Your task to perform on an android device: open app "Adobe Express: Graphic Design" (install if not already installed) and go to login screen Image 0: 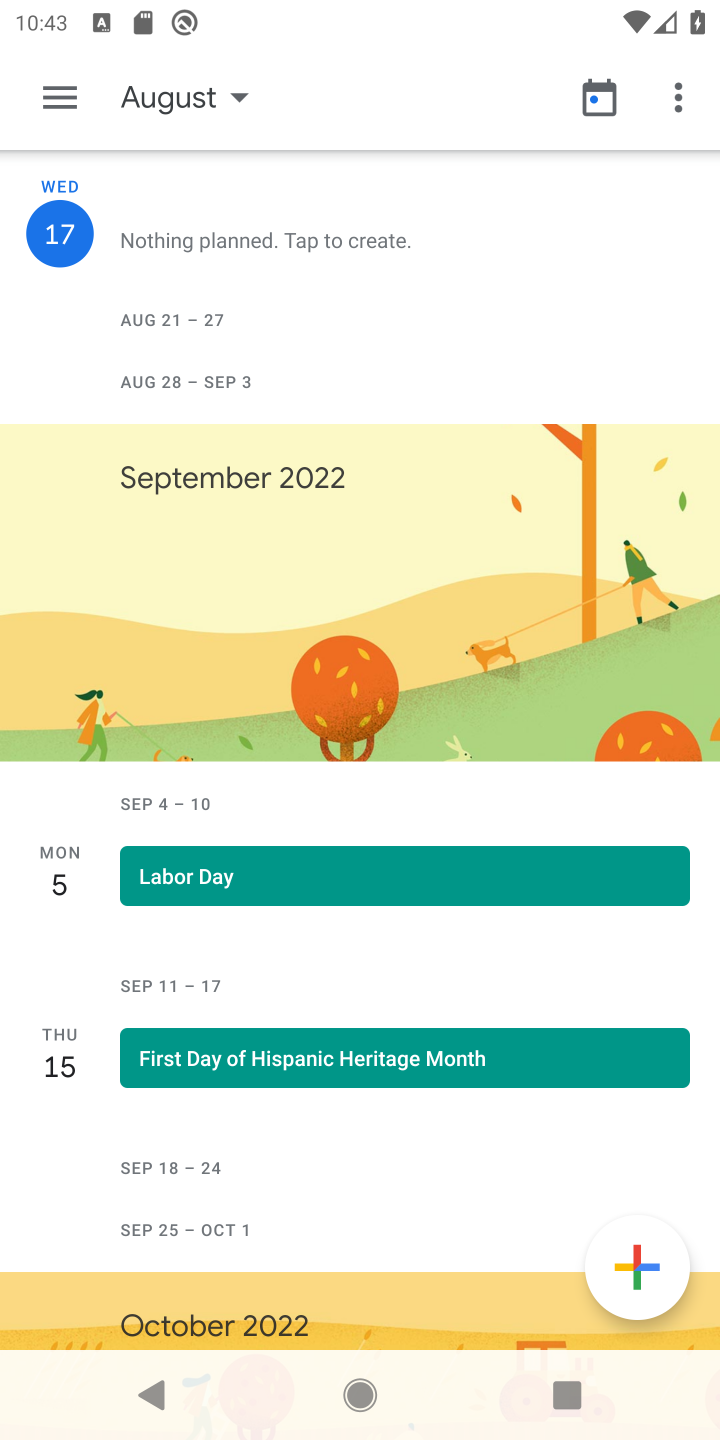
Step 0: press home button
Your task to perform on an android device: open app "Adobe Express: Graphic Design" (install if not already installed) and go to login screen Image 1: 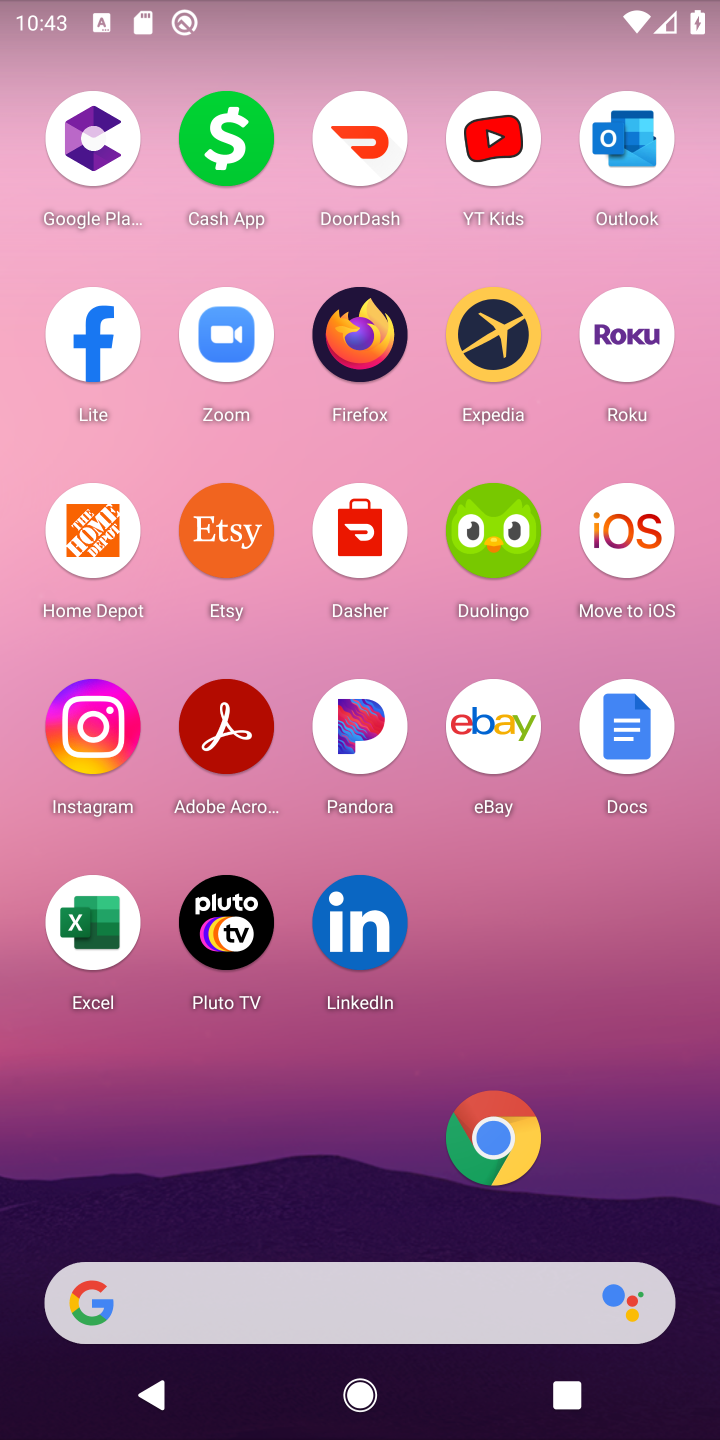
Step 1: drag from (242, 1210) to (347, 580)
Your task to perform on an android device: open app "Adobe Express: Graphic Design" (install if not already installed) and go to login screen Image 2: 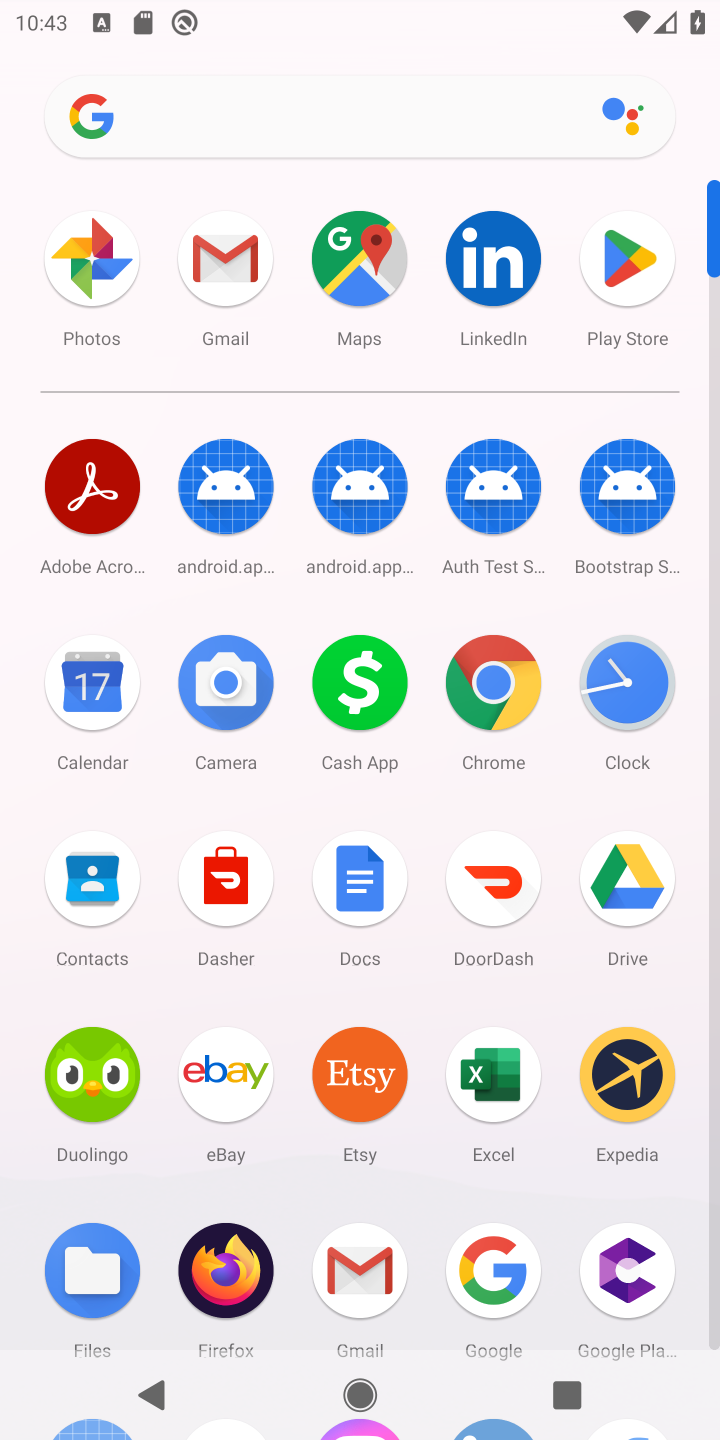
Step 2: click (603, 239)
Your task to perform on an android device: open app "Adobe Express: Graphic Design" (install if not already installed) and go to login screen Image 3: 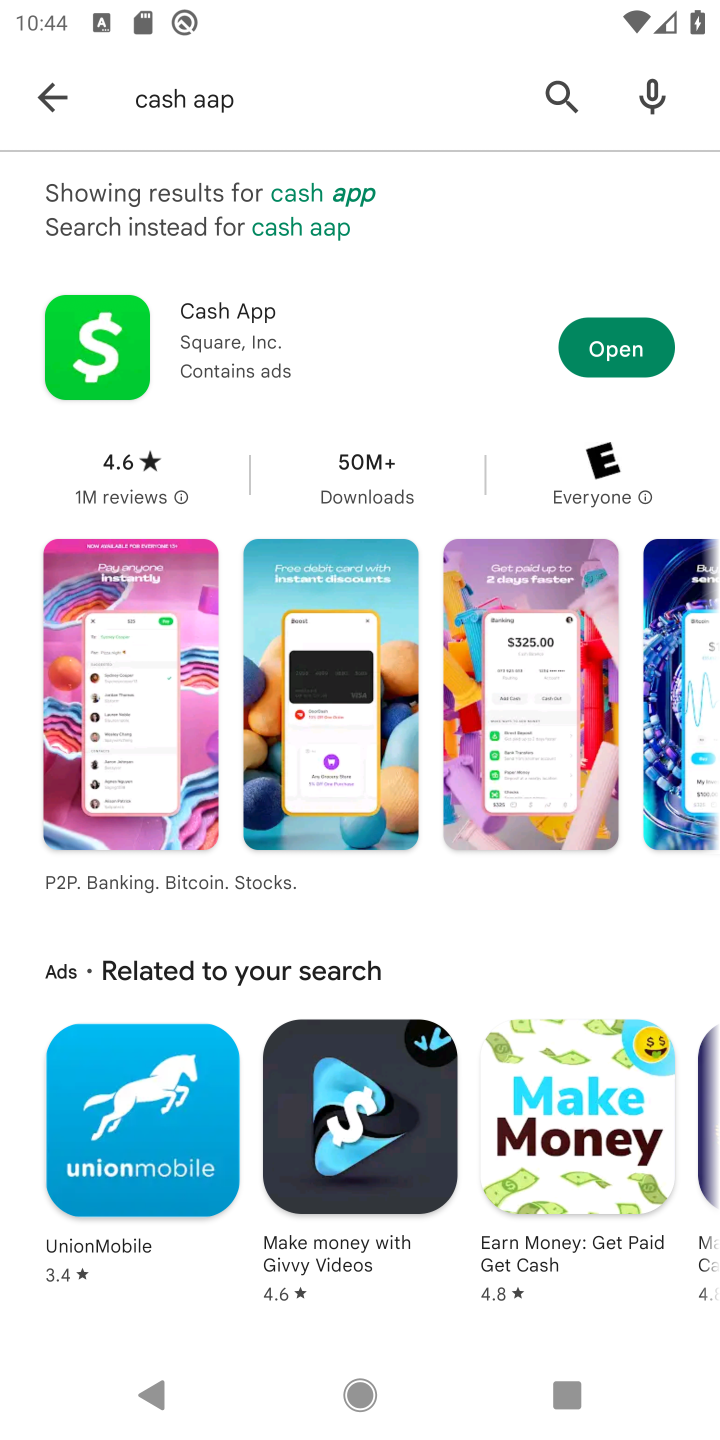
Step 3: click (49, 123)
Your task to perform on an android device: open app "Adobe Express: Graphic Design" (install if not already installed) and go to login screen Image 4: 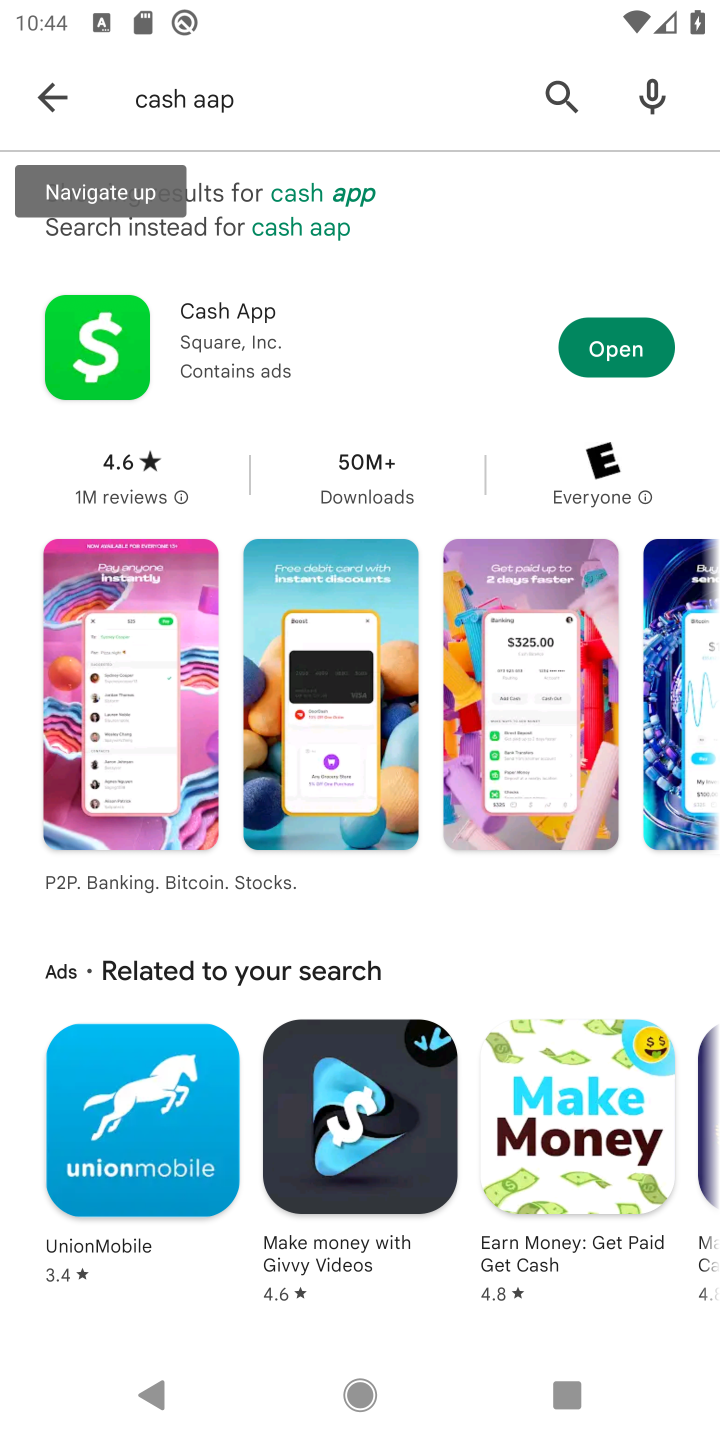
Step 4: click (52, 90)
Your task to perform on an android device: open app "Adobe Express: Graphic Design" (install if not already installed) and go to login screen Image 5: 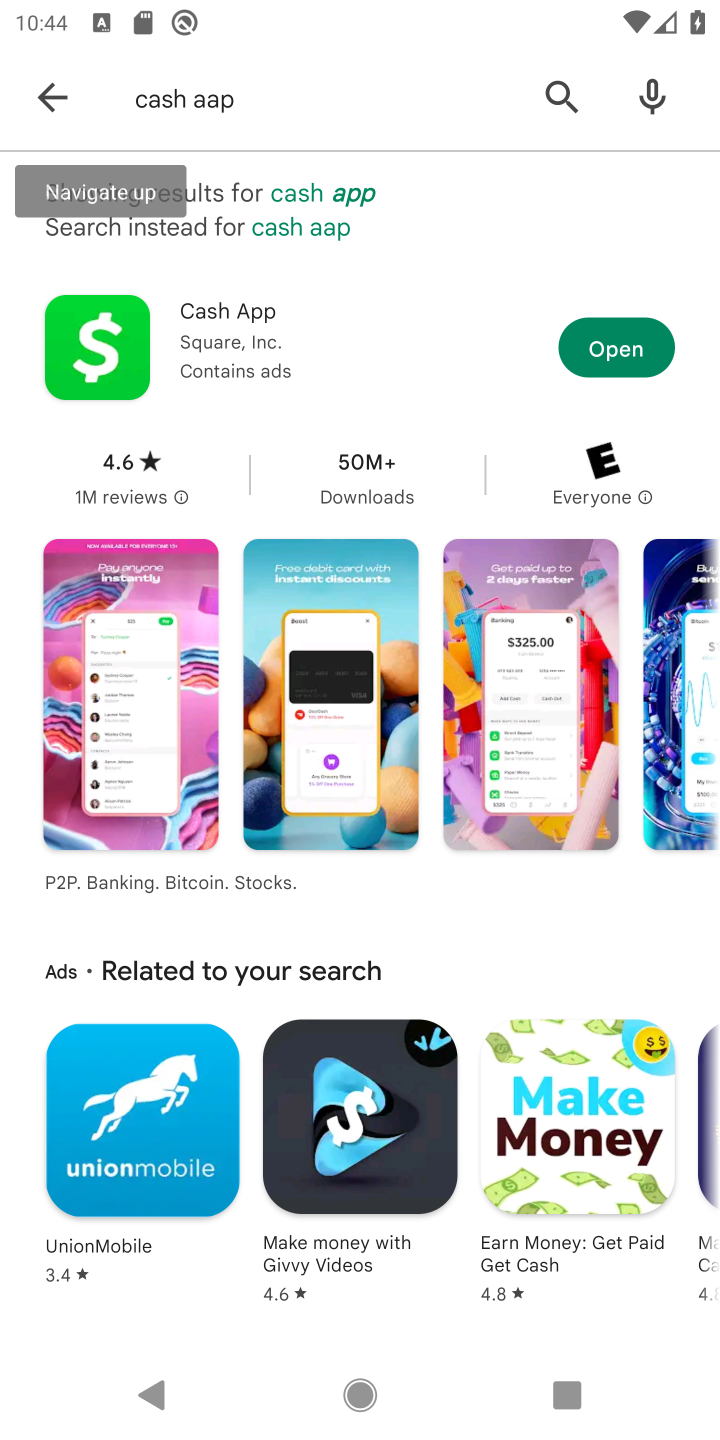
Step 5: click (52, 90)
Your task to perform on an android device: open app "Adobe Express: Graphic Design" (install if not already installed) and go to login screen Image 6: 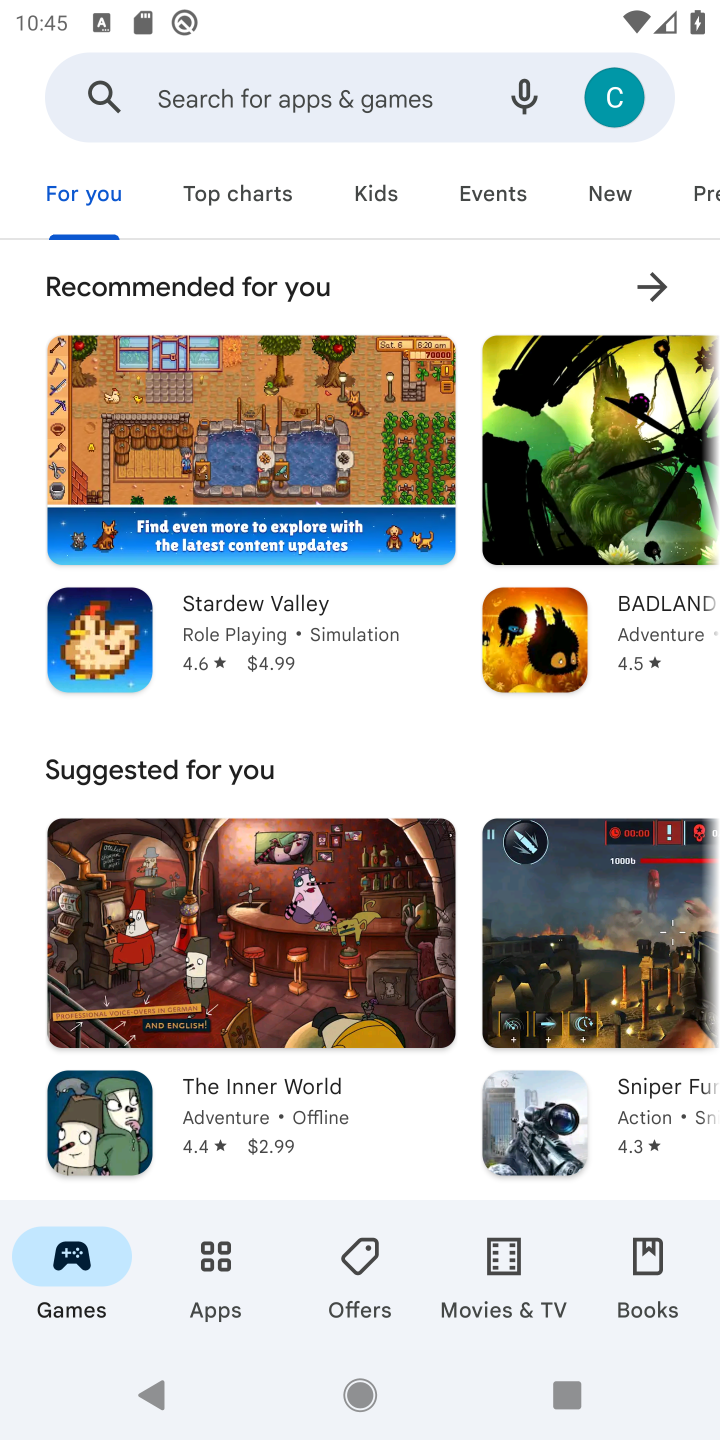
Step 6: click (334, 81)
Your task to perform on an android device: open app "Adobe Express: Graphic Design" (install if not already installed) and go to login screen Image 7: 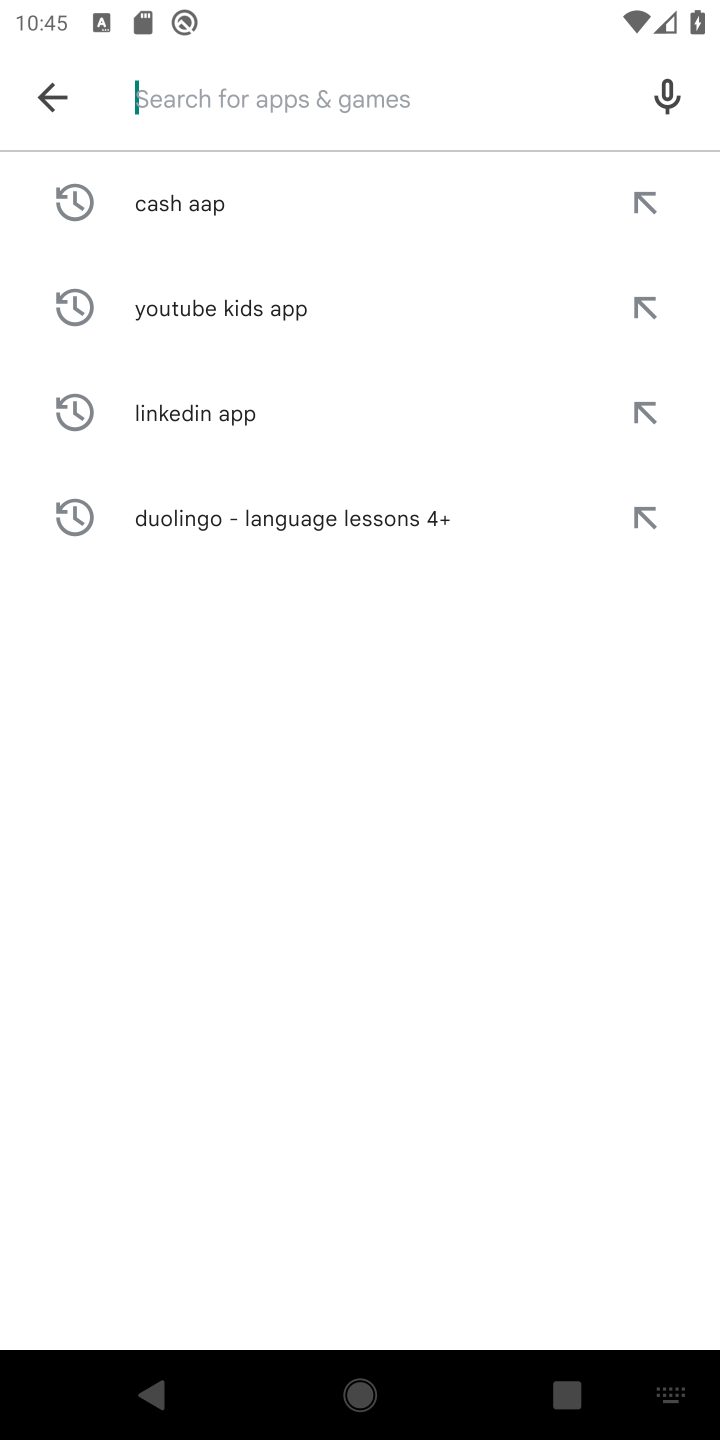
Step 7: type "Adobe Express: Graphic Design "
Your task to perform on an android device: open app "Adobe Express: Graphic Design" (install if not already installed) and go to login screen Image 8: 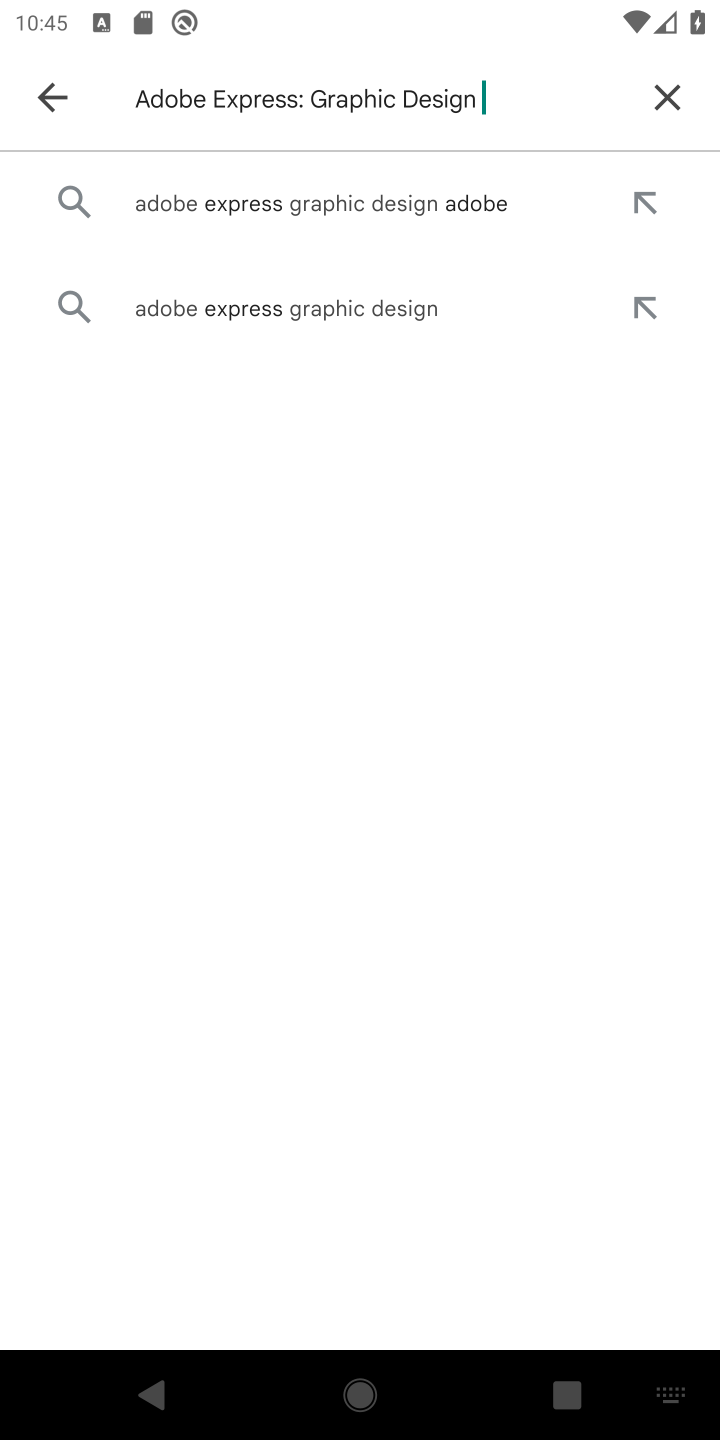
Step 8: click (273, 204)
Your task to perform on an android device: open app "Adobe Express: Graphic Design" (install if not already installed) and go to login screen Image 9: 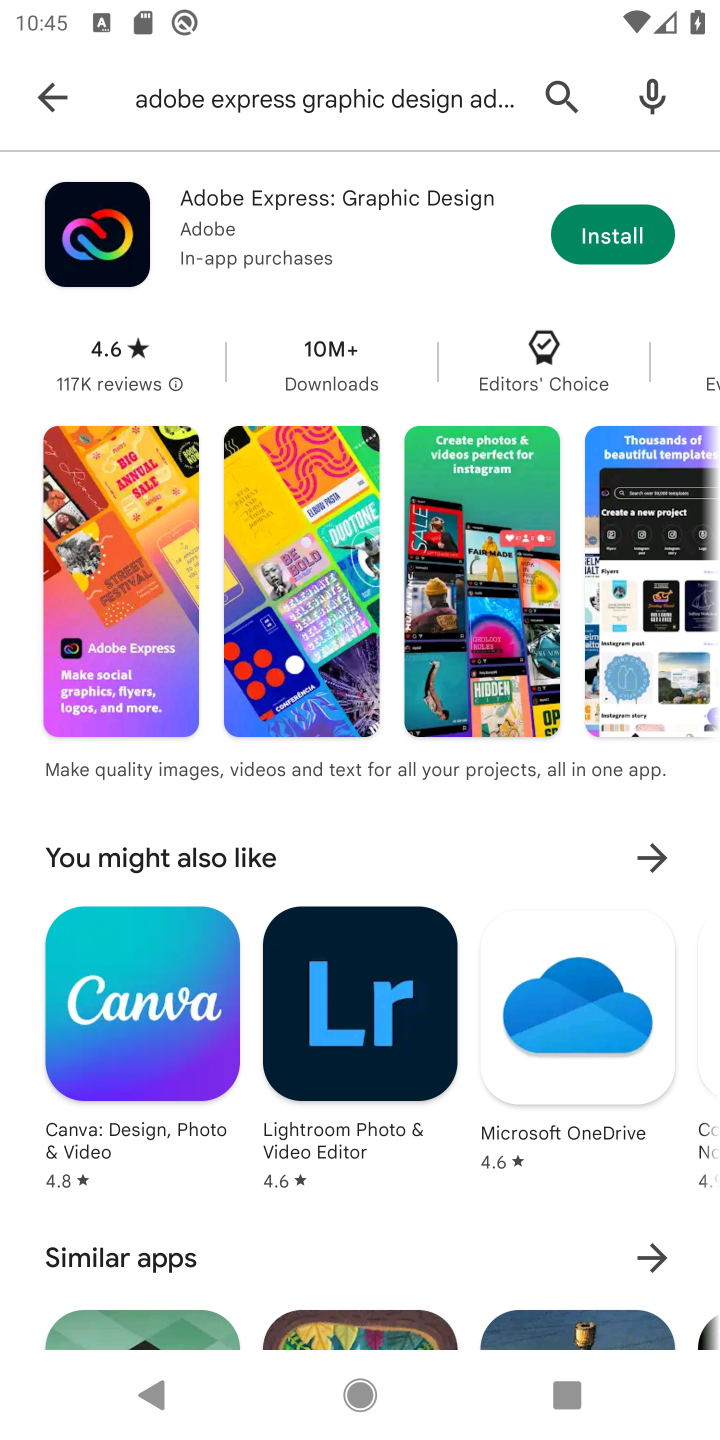
Step 9: click (621, 221)
Your task to perform on an android device: open app "Adobe Express: Graphic Design" (install if not already installed) and go to login screen Image 10: 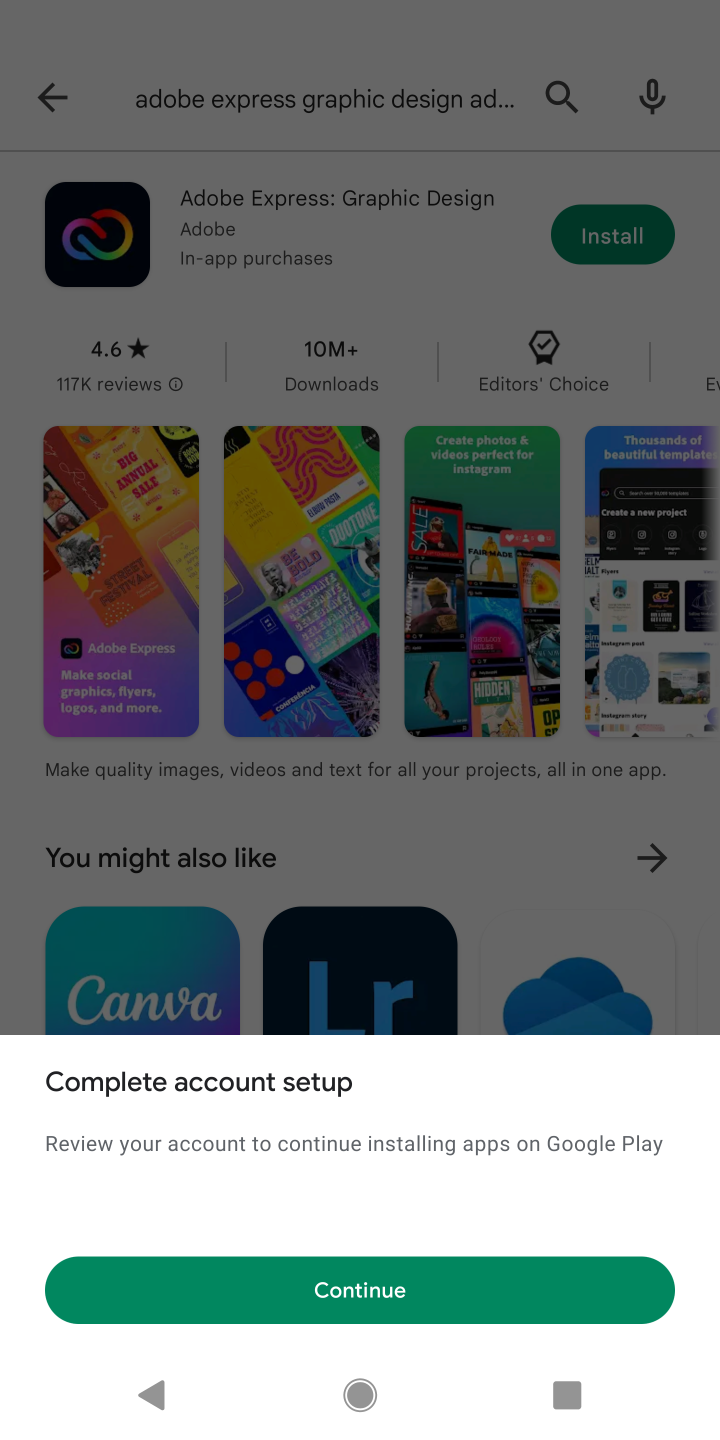
Step 10: task complete